Your task to perform on an android device: see tabs open on other devices in the chrome app Image 0: 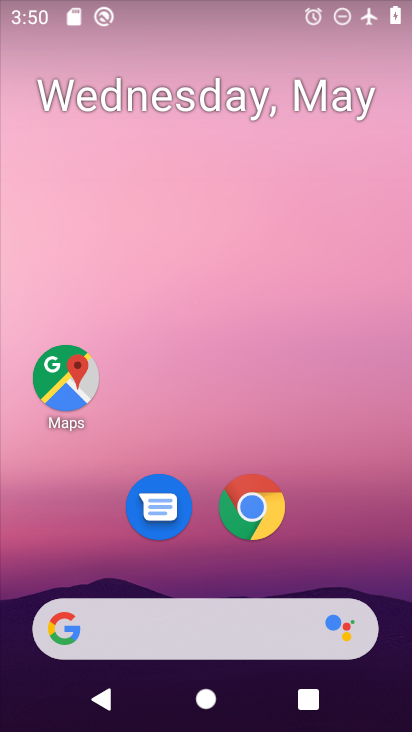
Step 0: drag from (200, 623) to (185, 134)
Your task to perform on an android device: see tabs open on other devices in the chrome app Image 1: 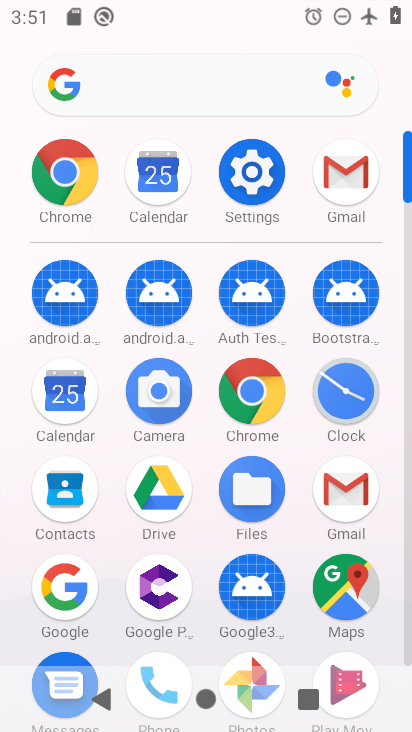
Step 1: click (271, 393)
Your task to perform on an android device: see tabs open on other devices in the chrome app Image 2: 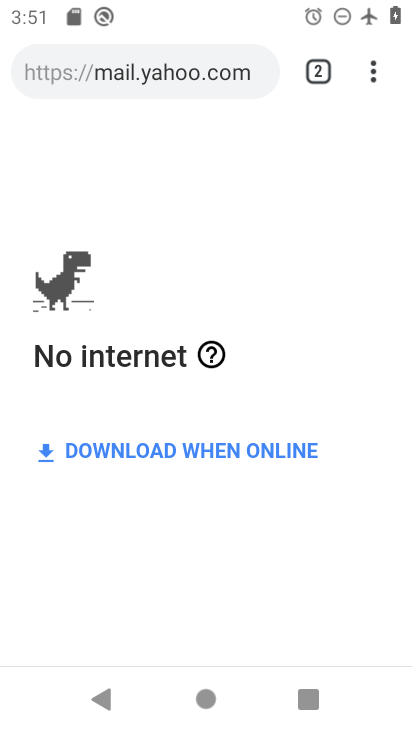
Step 2: task complete